Your task to perform on an android device: Open Youtube and go to "Your channel" Image 0: 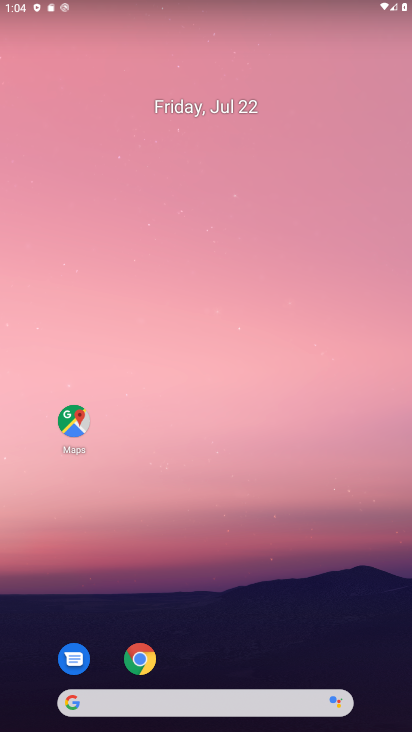
Step 0: drag from (206, 668) to (187, 97)
Your task to perform on an android device: Open Youtube and go to "Your channel" Image 1: 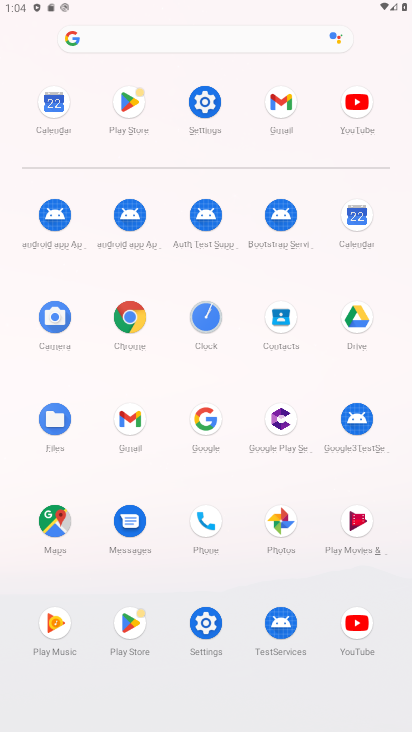
Step 1: click (356, 642)
Your task to perform on an android device: Open Youtube and go to "Your channel" Image 2: 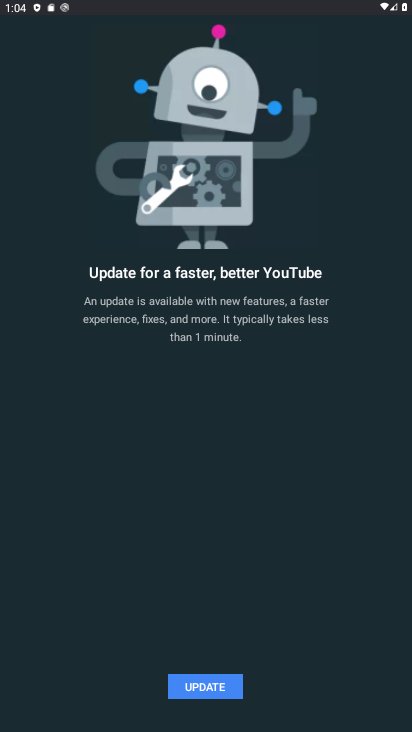
Step 2: click (212, 683)
Your task to perform on an android device: Open Youtube and go to "Your channel" Image 3: 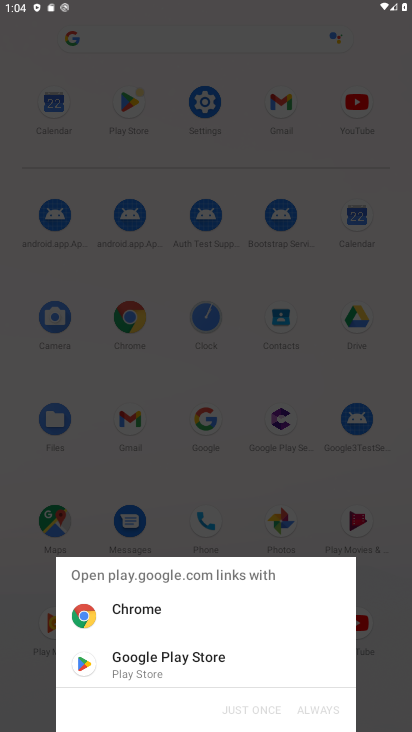
Step 3: click (207, 633)
Your task to perform on an android device: Open Youtube and go to "Your channel" Image 4: 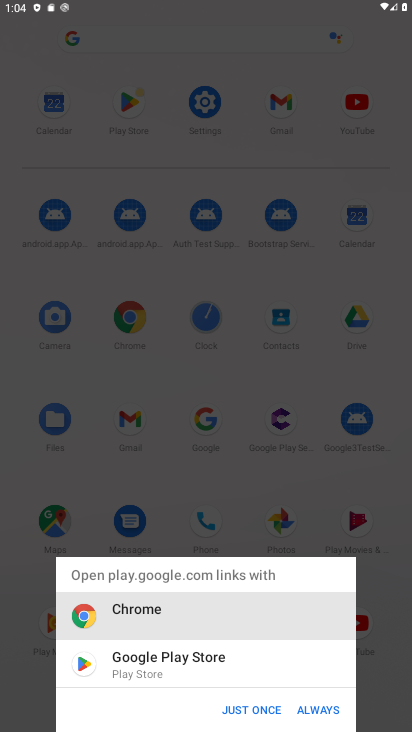
Step 4: click (225, 705)
Your task to perform on an android device: Open Youtube and go to "Your channel" Image 5: 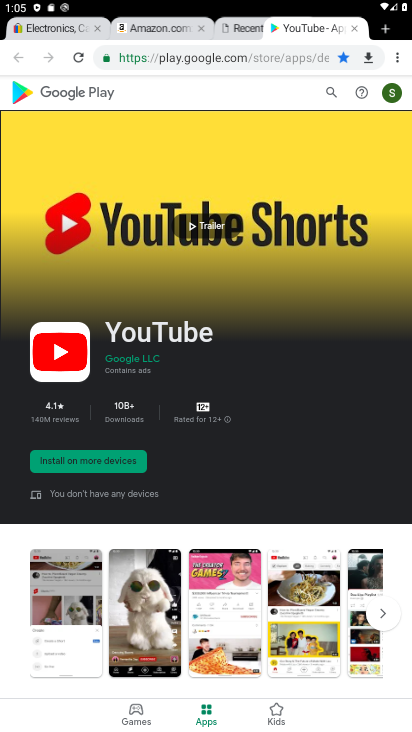
Step 5: click (400, 86)
Your task to perform on an android device: Open Youtube and go to "Your channel" Image 6: 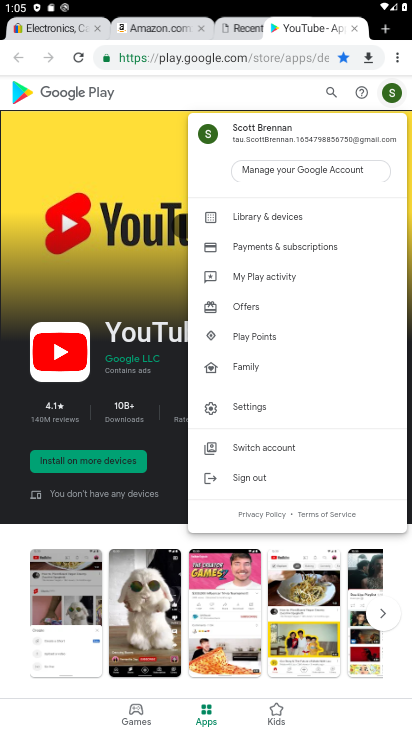
Step 6: click (258, 401)
Your task to perform on an android device: Open Youtube and go to "Your channel" Image 7: 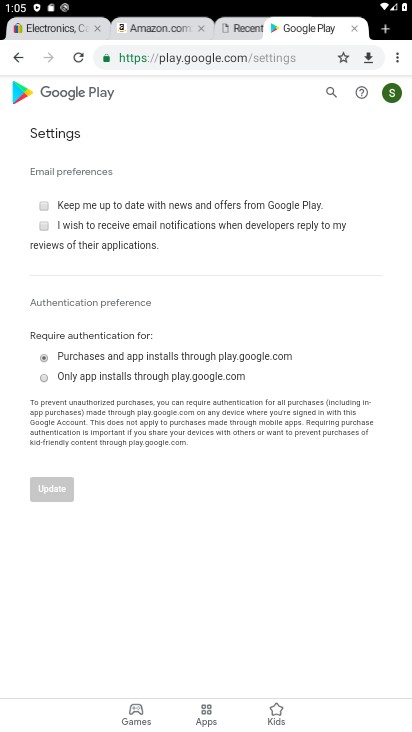
Step 7: task complete